Your task to perform on an android device: open chrome and create a bookmark for the current page Image 0: 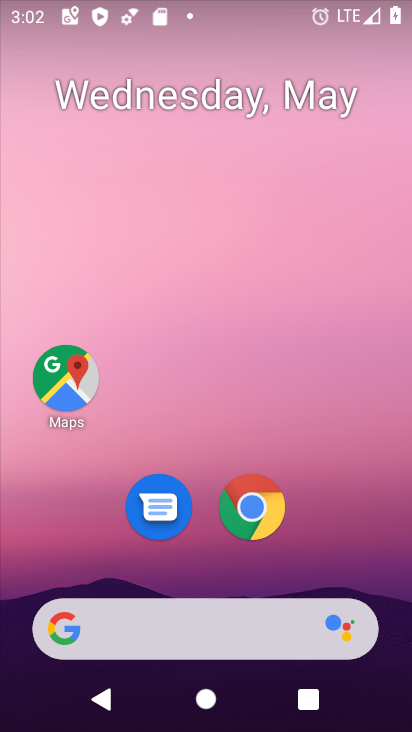
Step 0: click (252, 506)
Your task to perform on an android device: open chrome and create a bookmark for the current page Image 1: 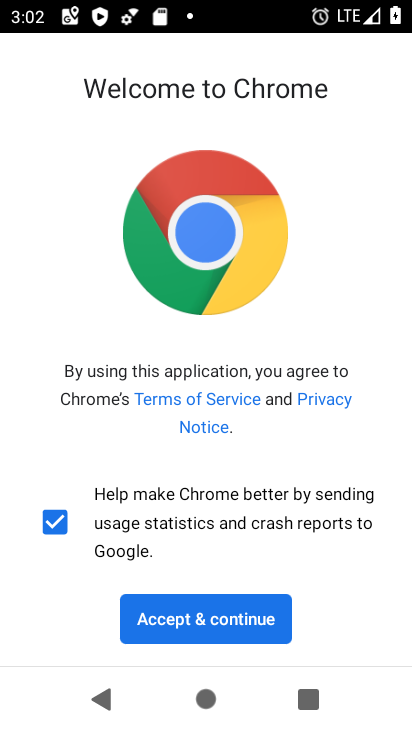
Step 1: click (217, 619)
Your task to perform on an android device: open chrome and create a bookmark for the current page Image 2: 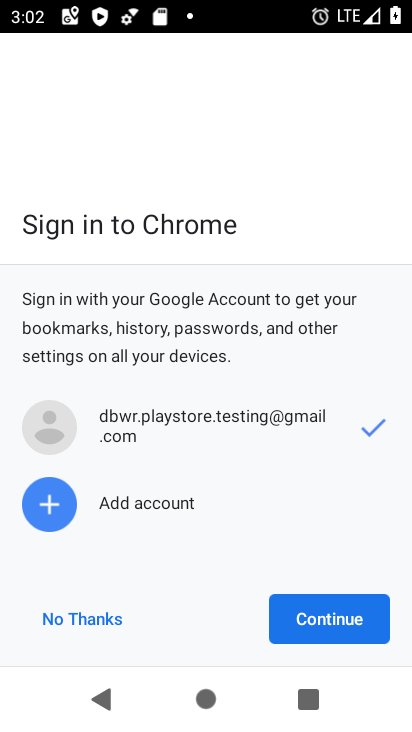
Step 2: click (324, 614)
Your task to perform on an android device: open chrome and create a bookmark for the current page Image 3: 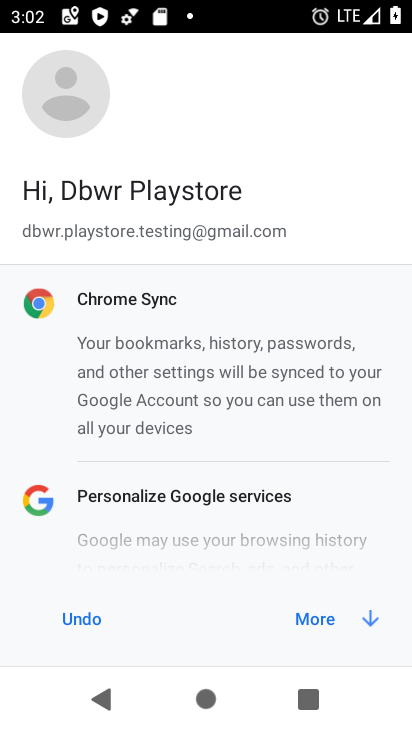
Step 3: click (324, 614)
Your task to perform on an android device: open chrome and create a bookmark for the current page Image 4: 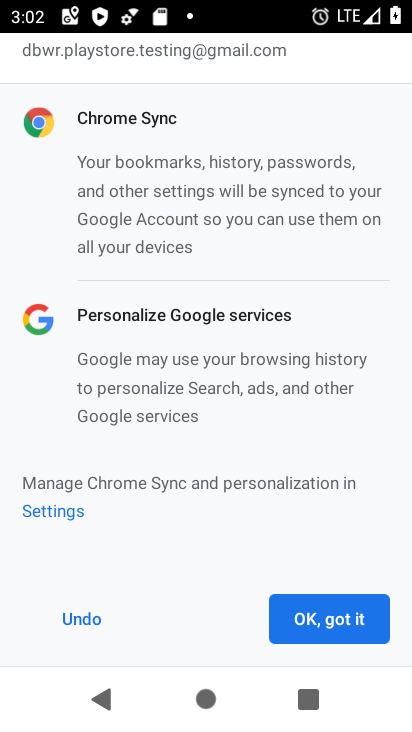
Step 4: click (324, 614)
Your task to perform on an android device: open chrome and create a bookmark for the current page Image 5: 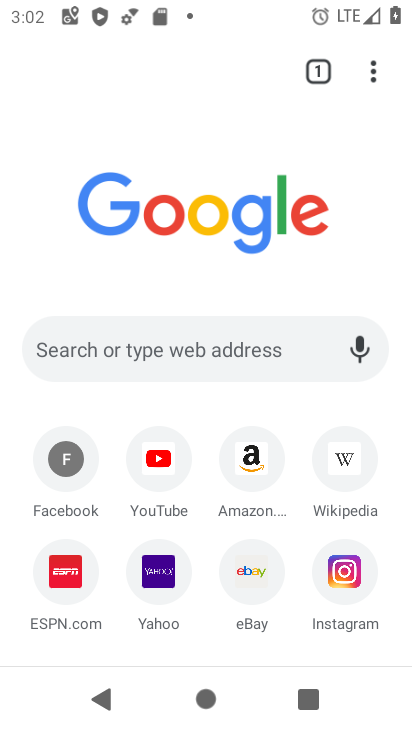
Step 5: click (373, 71)
Your task to perform on an android device: open chrome and create a bookmark for the current page Image 6: 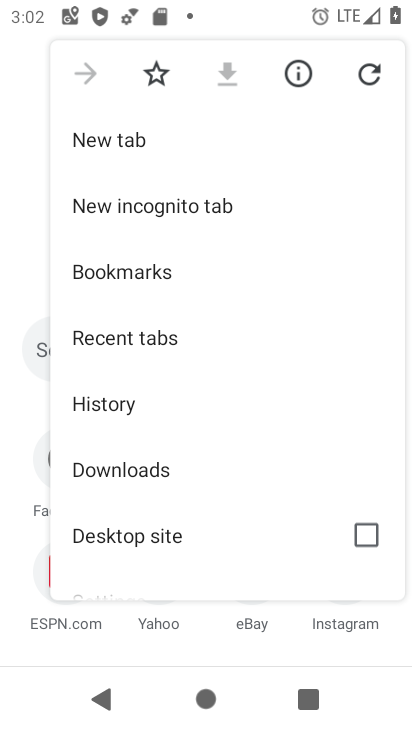
Step 6: click (159, 75)
Your task to perform on an android device: open chrome and create a bookmark for the current page Image 7: 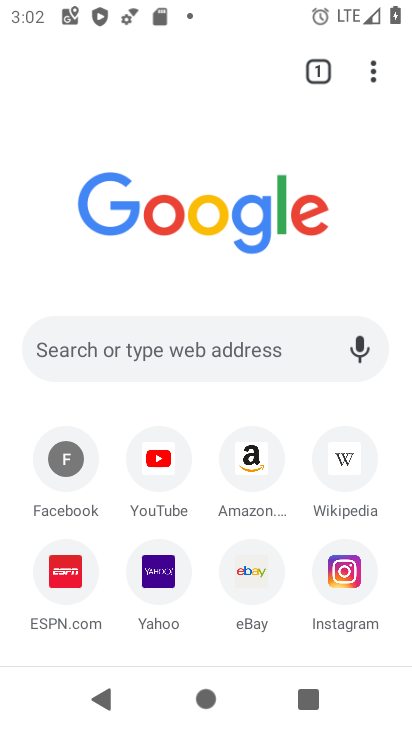
Step 7: task complete